Your task to perform on an android device: visit the assistant section in the google photos Image 0: 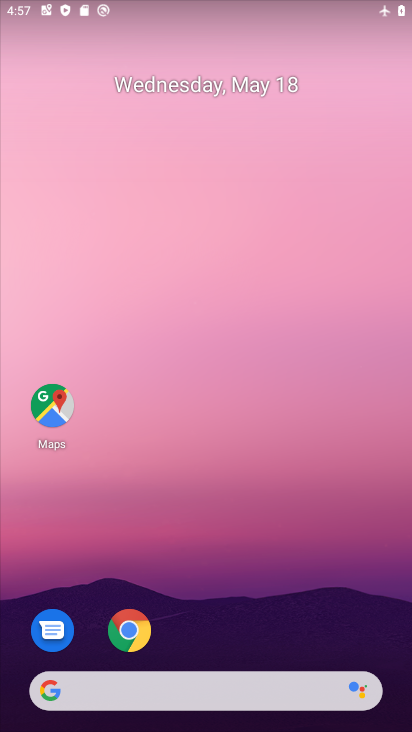
Step 0: drag from (240, 621) to (199, 58)
Your task to perform on an android device: visit the assistant section in the google photos Image 1: 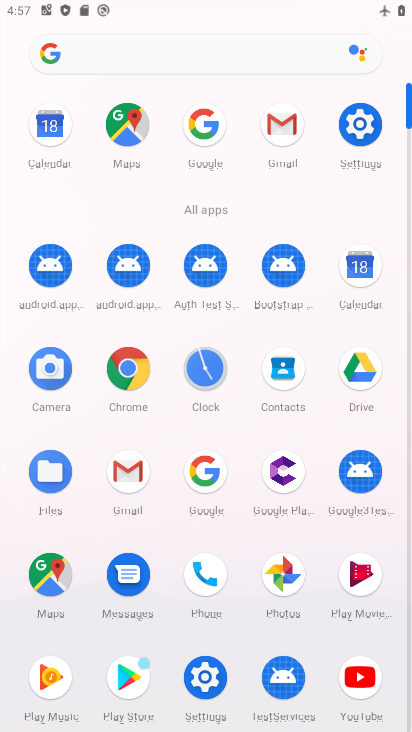
Step 1: click (283, 575)
Your task to perform on an android device: visit the assistant section in the google photos Image 2: 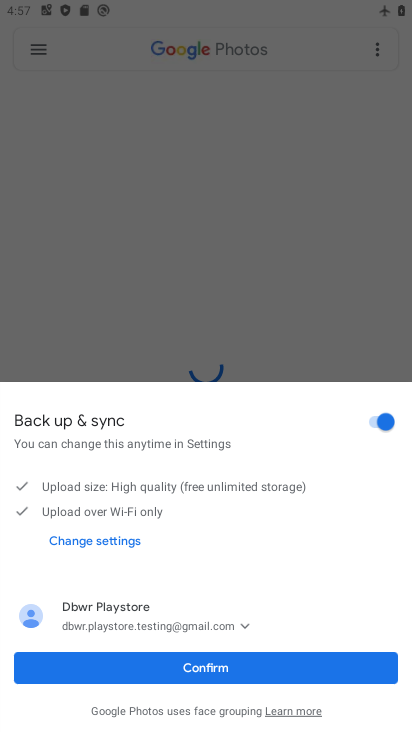
Step 2: click (211, 661)
Your task to perform on an android device: visit the assistant section in the google photos Image 3: 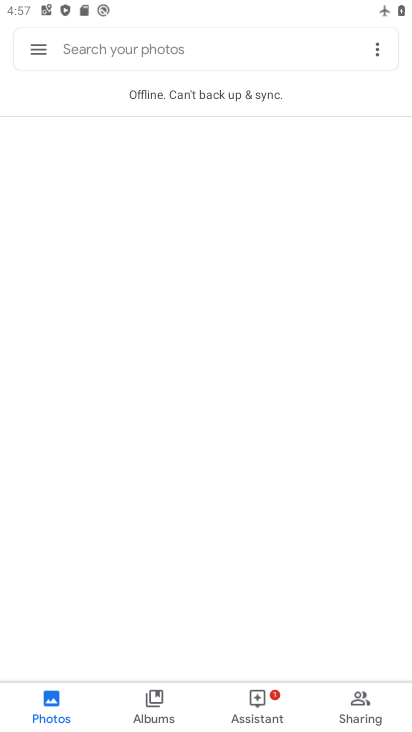
Step 3: click (257, 697)
Your task to perform on an android device: visit the assistant section in the google photos Image 4: 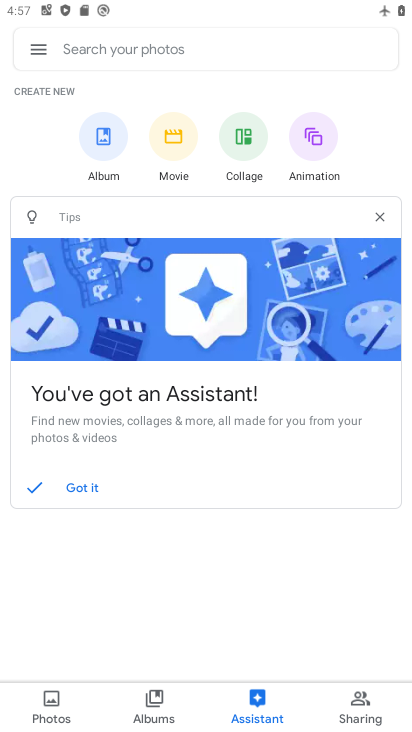
Step 4: task complete